Your task to perform on an android device: turn notification dots off Image 0: 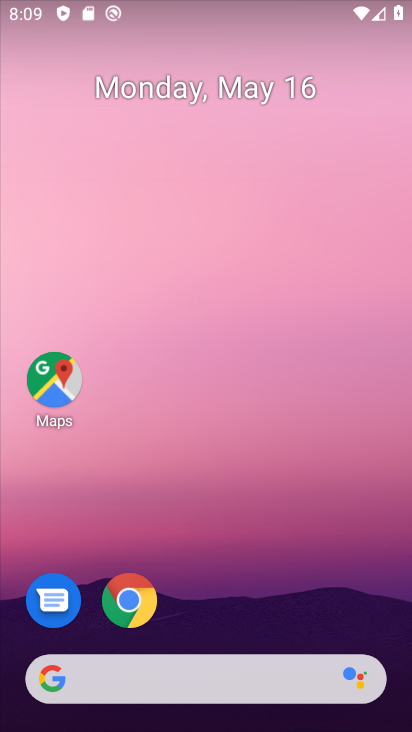
Step 0: drag from (184, 643) to (285, 284)
Your task to perform on an android device: turn notification dots off Image 1: 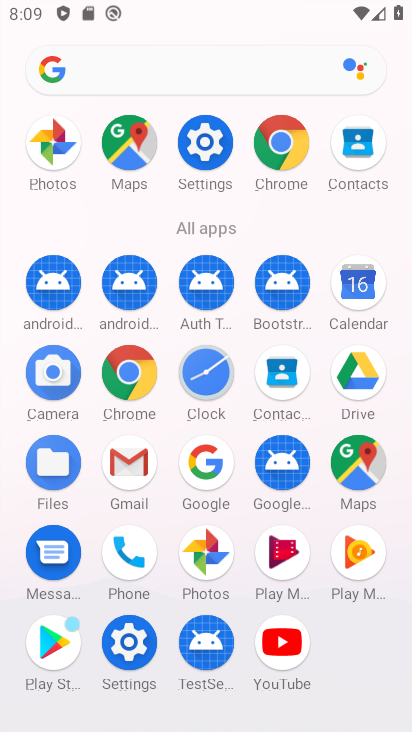
Step 1: click (125, 654)
Your task to perform on an android device: turn notification dots off Image 2: 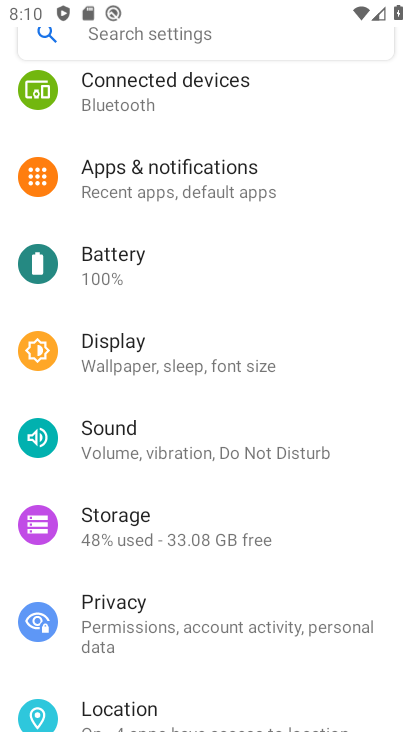
Step 2: click (190, 198)
Your task to perform on an android device: turn notification dots off Image 3: 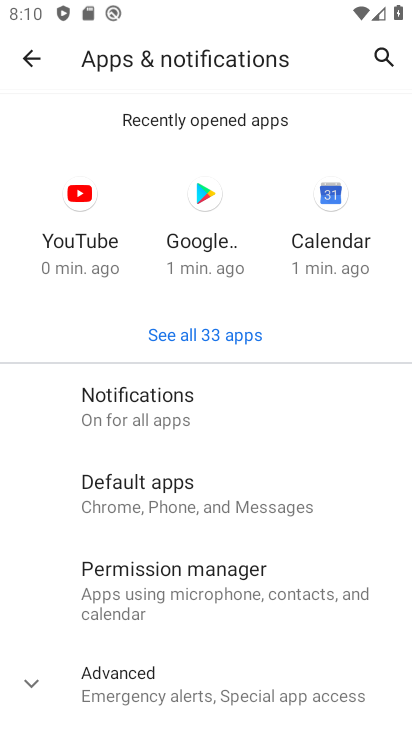
Step 3: click (203, 419)
Your task to perform on an android device: turn notification dots off Image 4: 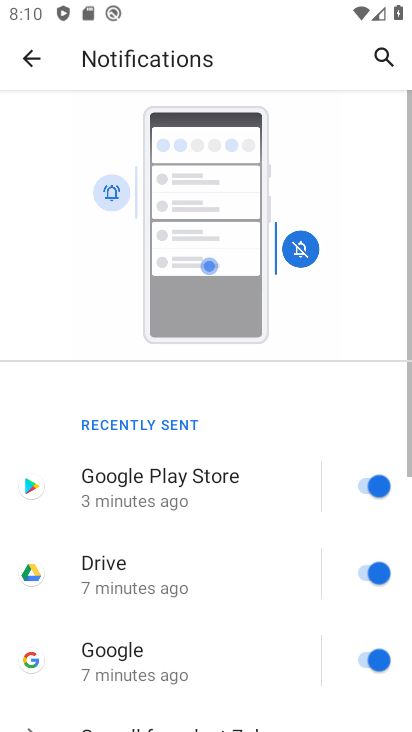
Step 4: drag from (129, 663) to (246, 56)
Your task to perform on an android device: turn notification dots off Image 5: 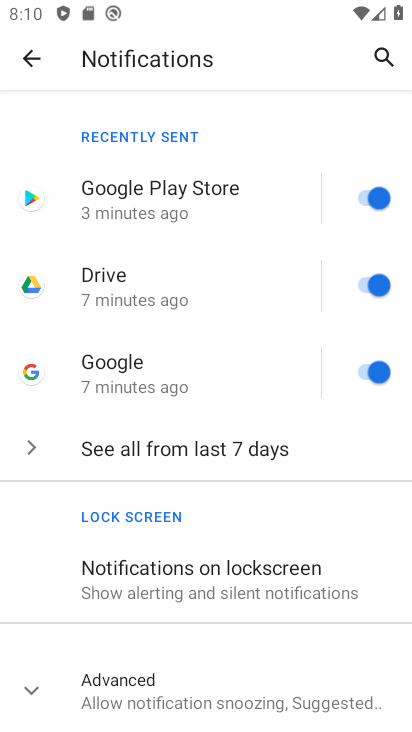
Step 5: click (171, 694)
Your task to perform on an android device: turn notification dots off Image 6: 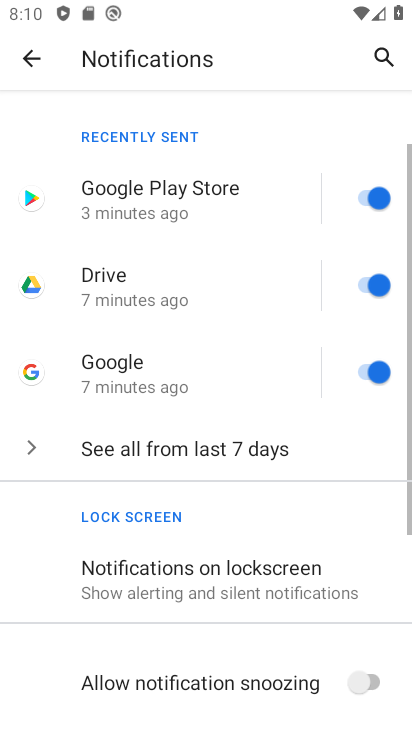
Step 6: drag from (170, 689) to (232, 258)
Your task to perform on an android device: turn notification dots off Image 7: 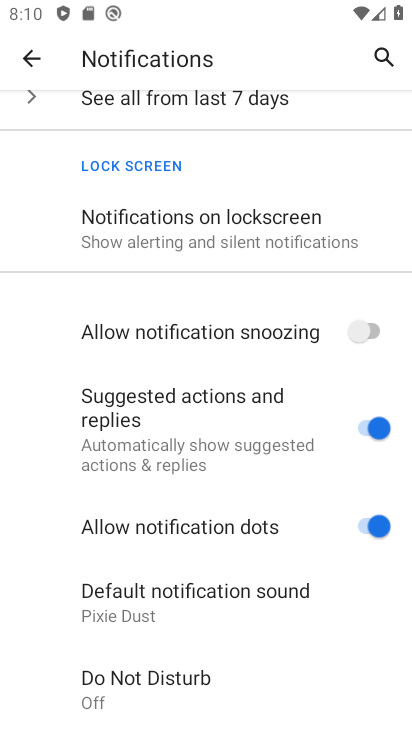
Step 7: click (358, 530)
Your task to perform on an android device: turn notification dots off Image 8: 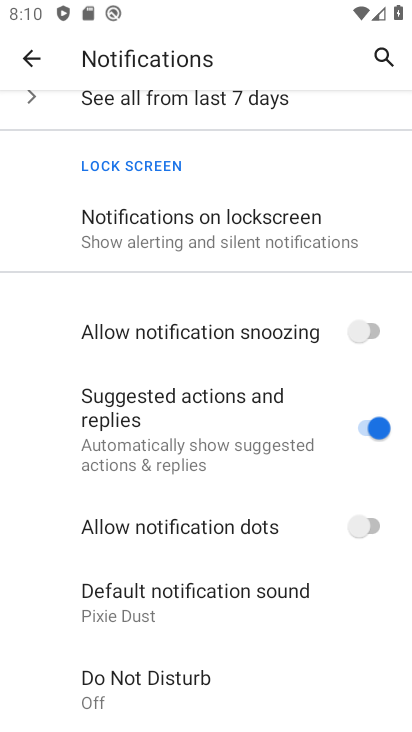
Step 8: task complete